Your task to perform on an android device: toggle priority inbox in the gmail app Image 0: 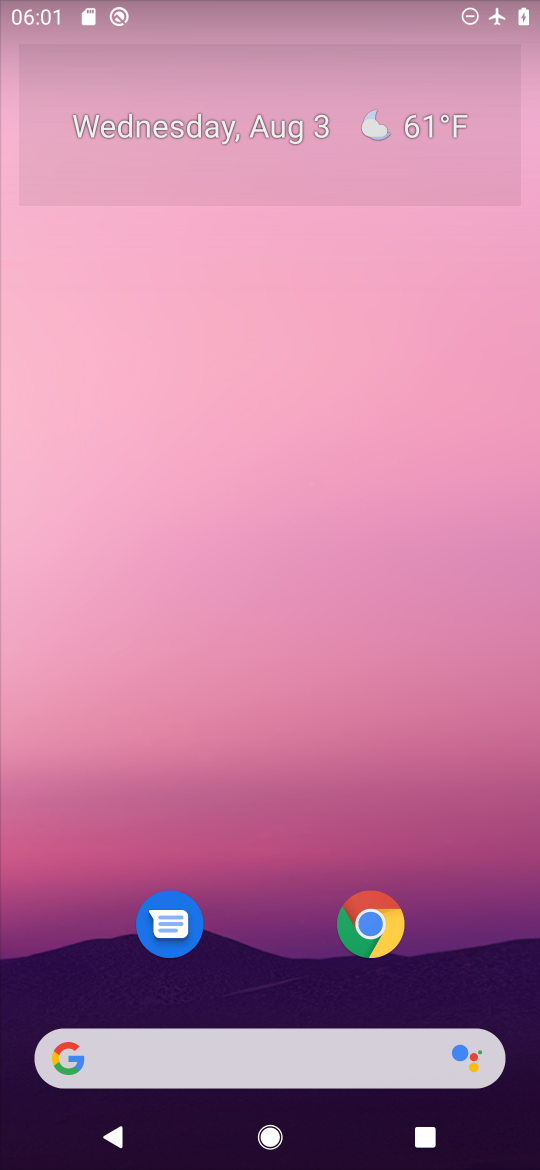
Step 0: drag from (258, 951) to (263, 414)
Your task to perform on an android device: toggle priority inbox in the gmail app Image 1: 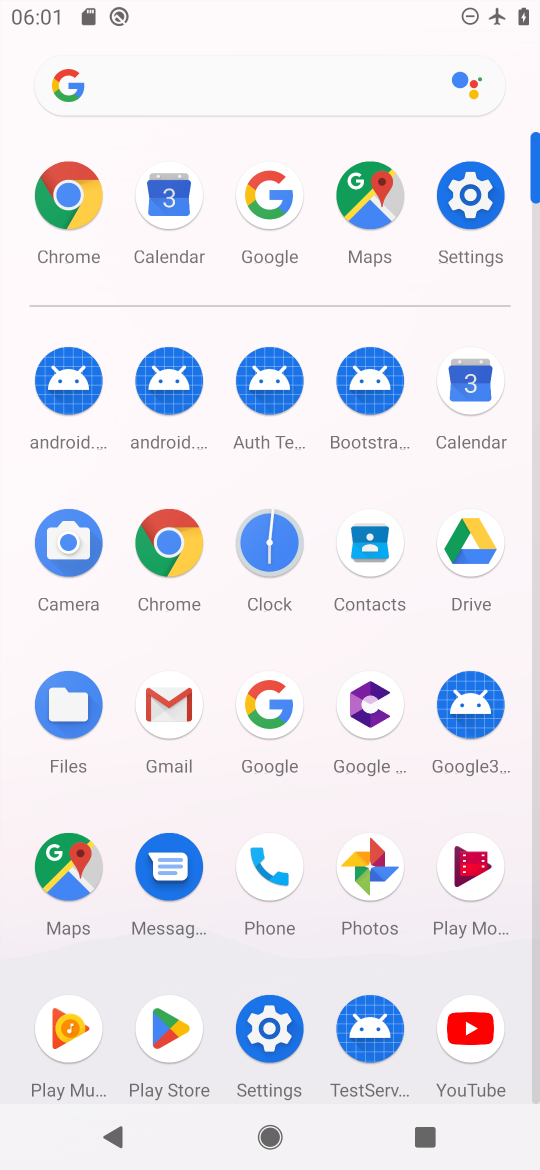
Step 1: click (179, 740)
Your task to perform on an android device: toggle priority inbox in the gmail app Image 2: 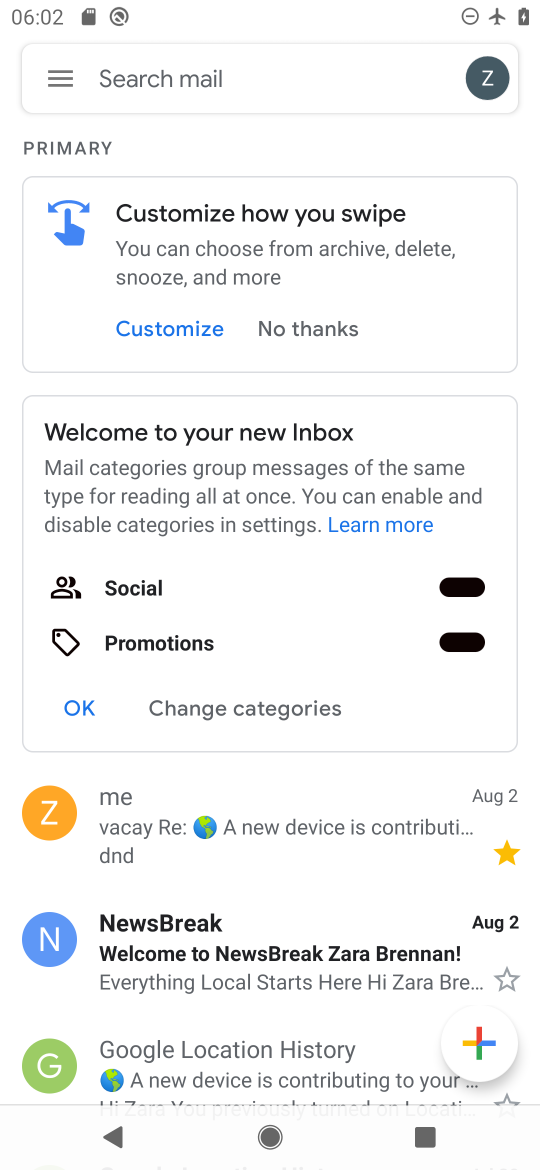
Step 2: click (65, 83)
Your task to perform on an android device: toggle priority inbox in the gmail app Image 3: 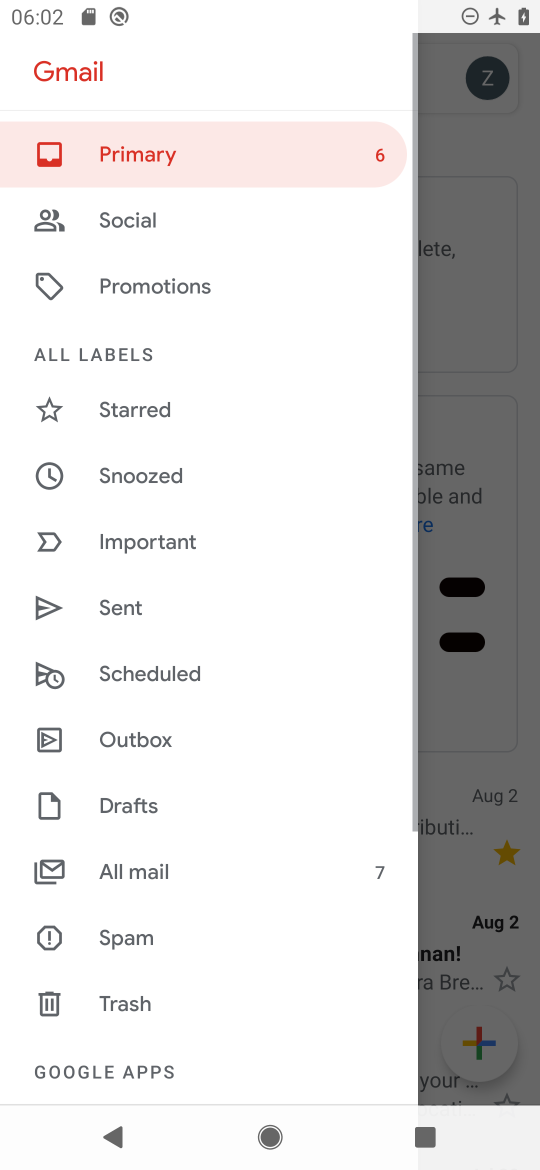
Step 3: drag from (128, 891) to (138, 523)
Your task to perform on an android device: toggle priority inbox in the gmail app Image 4: 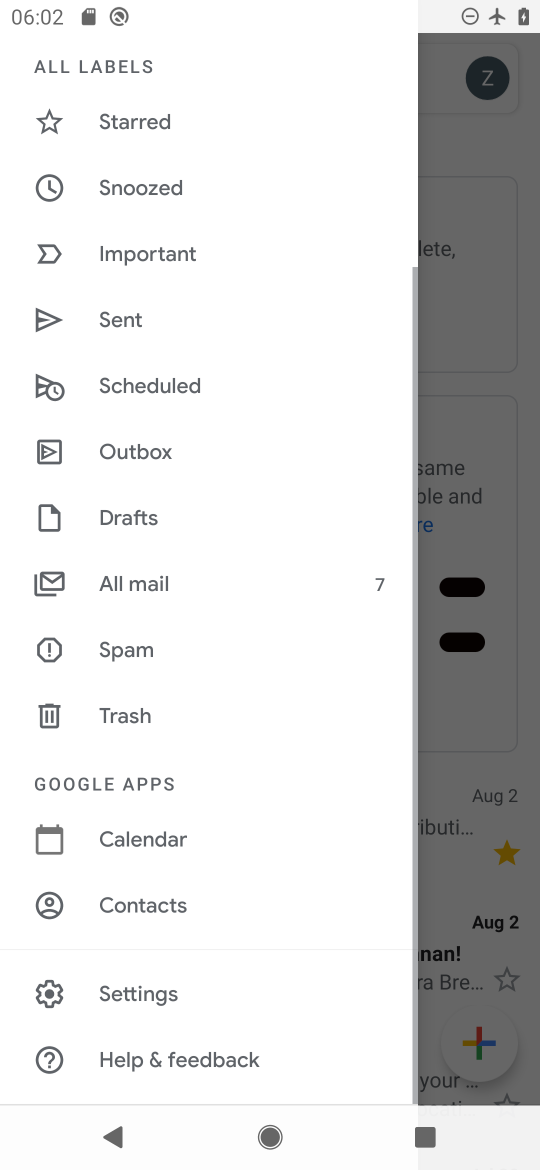
Step 4: click (157, 978)
Your task to perform on an android device: toggle priority inbox in the gmail app Image 5: 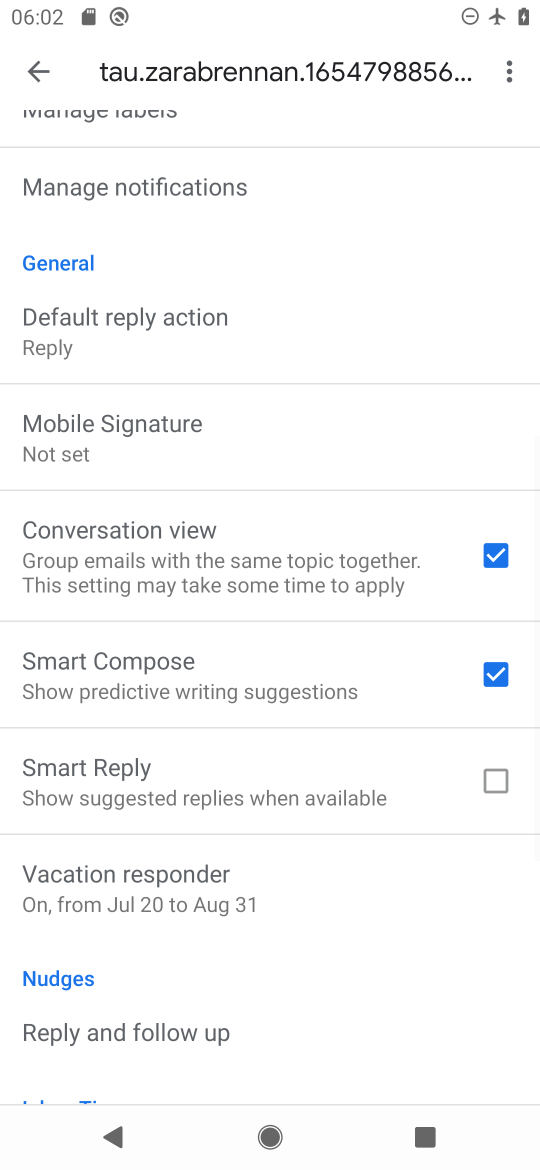
Step 5: drag from (192, 285) to (261, 951)
Your task to perform on an android device: toggle priority inbox in the gmail app Image 6: 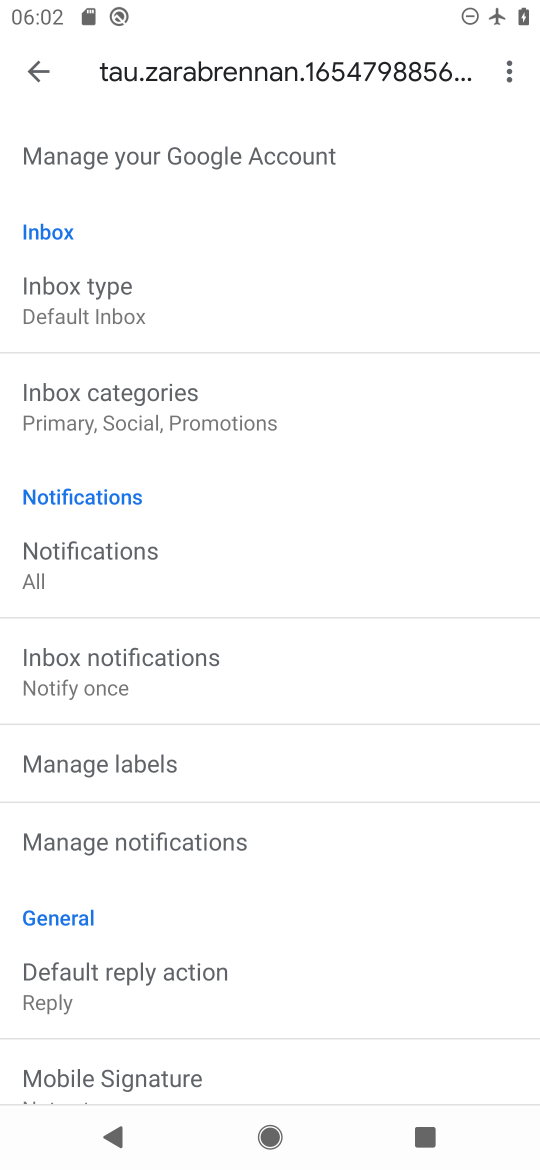
Step 6: click (153, 329)
Your task to perform on an android device: toggle priority inbox in the gmail app Image 7: 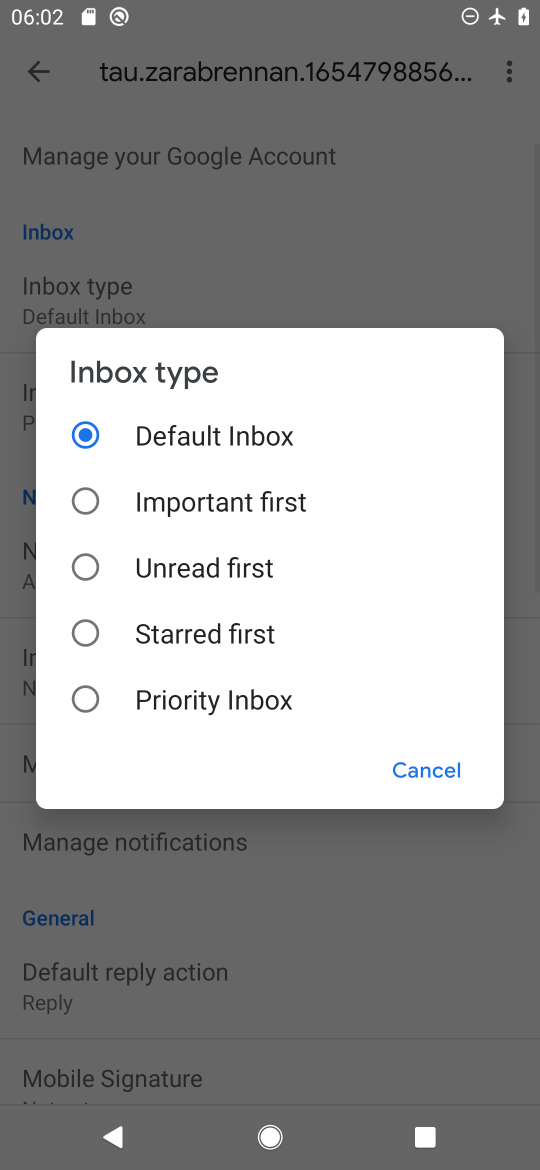
Step 7: click (160, 687)
Your task to perform on an android device: toggle priority inbox in the gmail app Image 8: 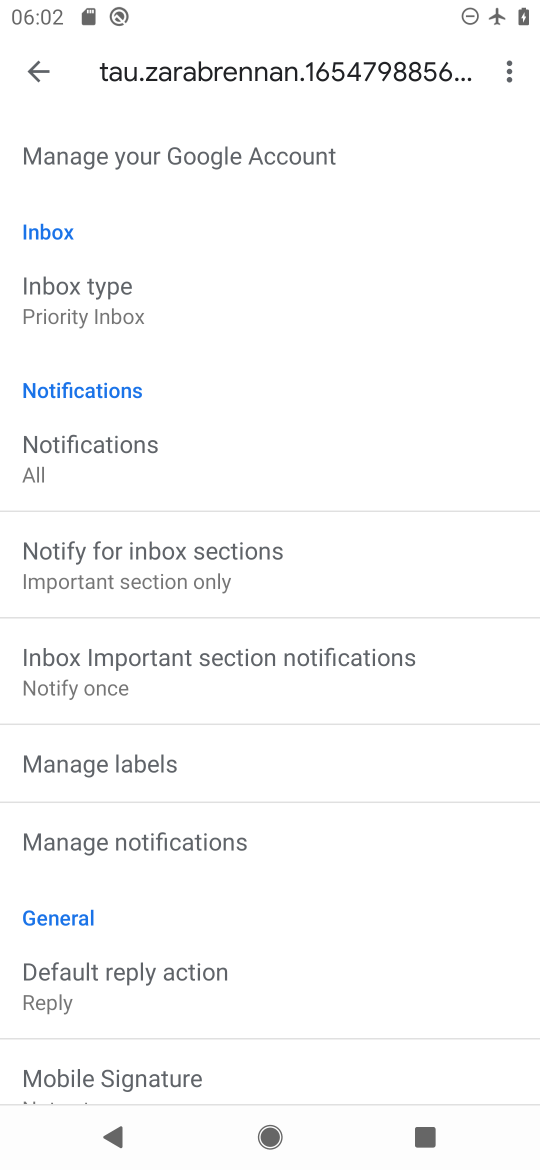
Step 8: task complete